Your task to perform on an android device: Open Google Chrome and open the bookmarks view Image 0: 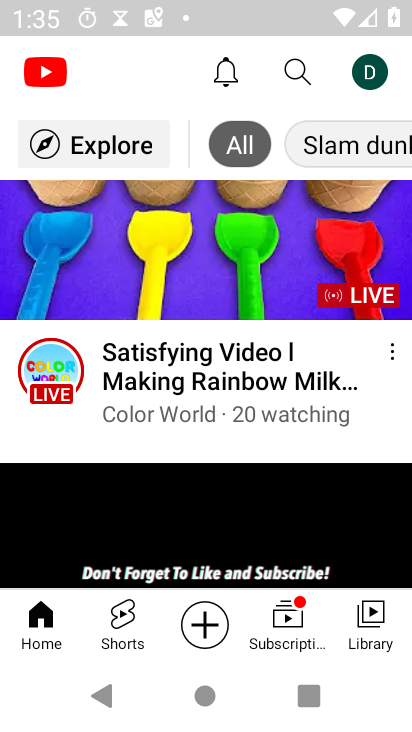
Step 0: press home button
Your task to perform on an android device: Open Google Chrome and open the bookmarks view Image 1: 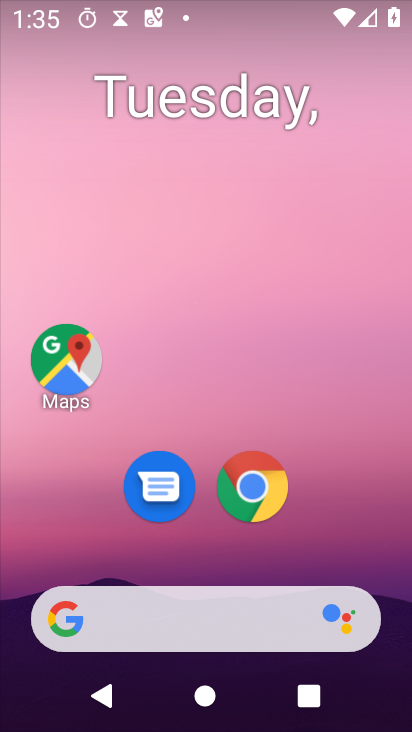
Step 1: drag from (364, 546) to (311, 132)
Your task to perform on an android device: Open Google Chrome and open the bookmarks view Image 2: 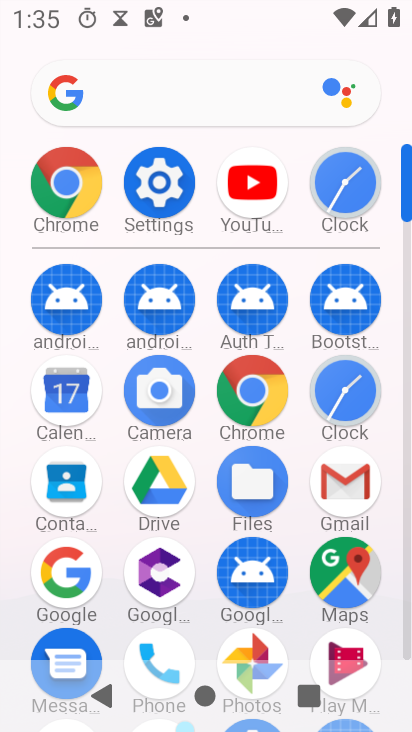
Step 2: click (83, 180)
Your task to perform on an android device: Open Google Chrome and open the bookmarks view Image 3: 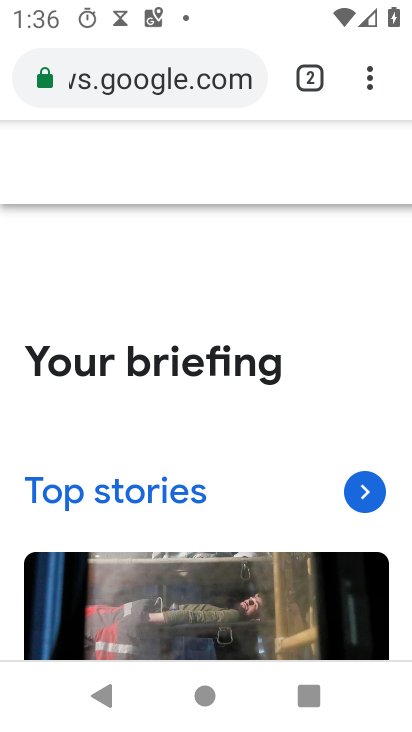
Step 3: click (379, 81)
Your task to perform on an android device: Open Google Chrome and open the bookmarks view Image 4: 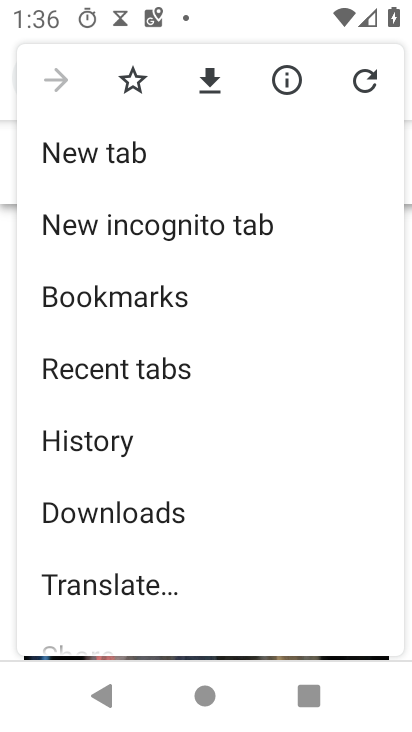
Step 4: click (311, 284)
Your task to perform on an android device: Open Google Chrome and open the bookmarks view Image 5: 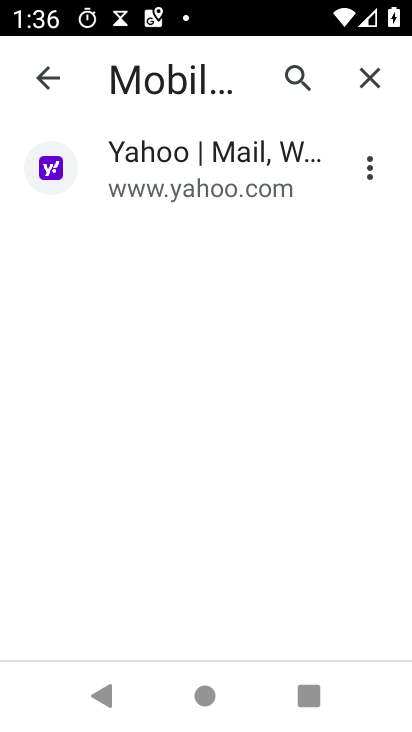
Step 5: task complete